Your task to perform on an android device: Empty the shopping cart on walmart. Add "jbl flip 4" to the cart on walmart Image 0: 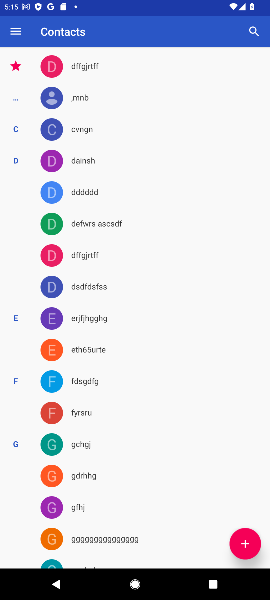
Step 0: press home button
Your task to perform on an android device: Empty the shopping cart on walmart. Add "jbl flip 4" to the cart on walmart Image 1: 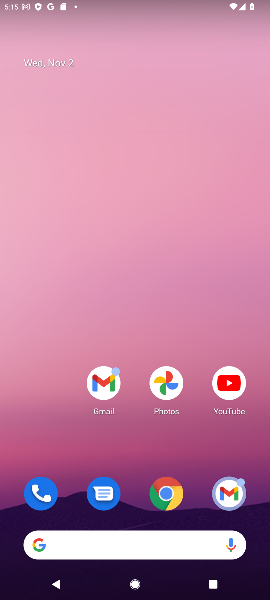
Step 1: drag from (131, 504) to (124, 190)
Your task to perform on an android device: Empty the shopping cart on walmart. Add "jbl flip 4" to the cart on walmart Image 2: 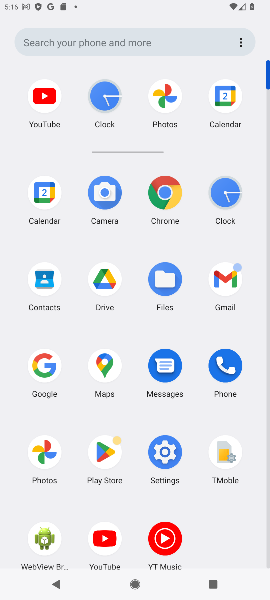
Step 2: click (43, 365)
Your task to perform on an android device: Empty the shopping cart on walmart. Add "jbl flip 4" to the cart on walmart Image 3: 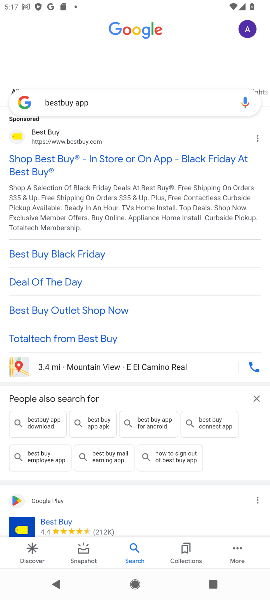
Step 3: click (115, 97)
Your task to perform on an android device: Empty the shopping cart on walmart. Add "jbl flip 4" to the cart on walmart Image 4: 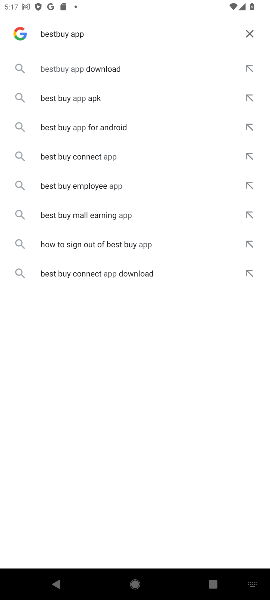
Step 4: click (246, 30)
Your task to perform on an android device: Empty the shopping cart on walmart. Add "jbl flip 4" to the cart on walmart Image 5: 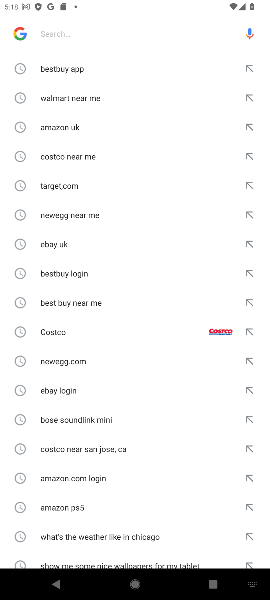
Step 5: click (52, 29)
Your task to perform on an android device: Empty the shopping cart on walmart. Add "jbl flip 4" to the cart on walmart Image 6: 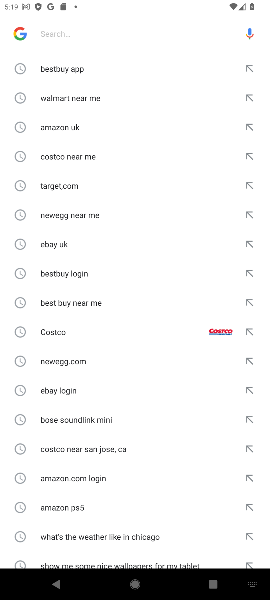
Step 6: type "walmart "
Your task to perform on an android device: Empty the shopping cart on walmart. Add "jbl flip 4" to the cart on walmart Image 7: 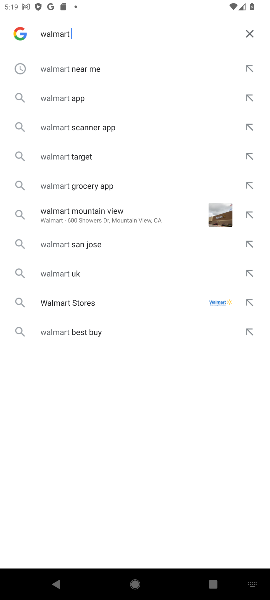
Step 7: click (247, 37)
Your task to perform on an android device: Empty the shopping cart on walmart. Add "jbl flip 4" to the cart on walmart Image 8: 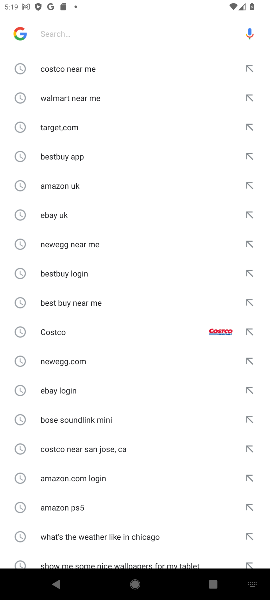
Step 8: click (54, 93)
Your task to perform on an android device: Empty the shopping cart on walmart. Add "jbl flip 4" to the cart on walmart Image 9: 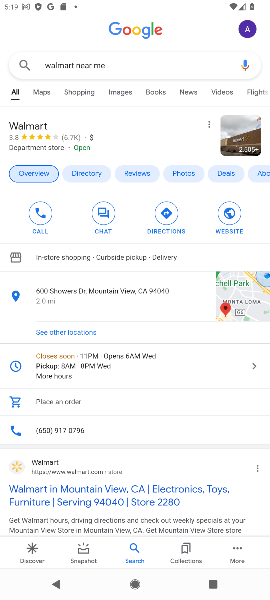
Step 9: click (16, 464)
Your task to perform on an android device: Empty the shopping cart on walmart. Add "jbl flip 4" to the cart on walmart Image 10: 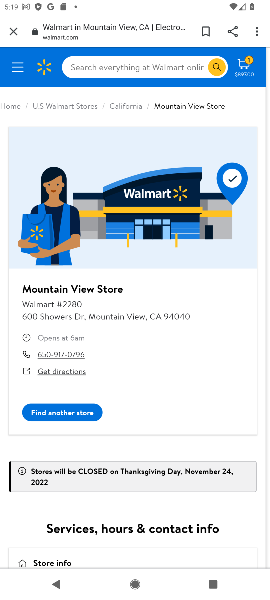
Step 10: click (98, 66)
Your task to perform on an android device: Empty the shopping cart on walmart. Add "jbl flip 4" to the cart on walmart Image 11: 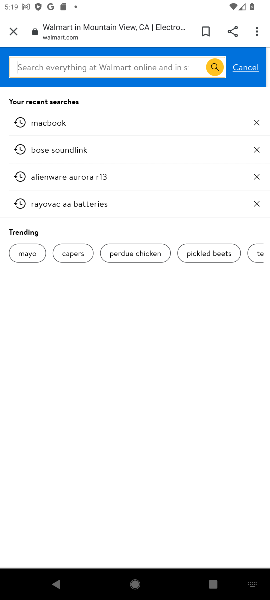
Step 11: click (242, 73)
Your task to perform on an android device: Empty the shopping cart on walmart. Add "jbl flip 4" to the cart on walmart Image 12: 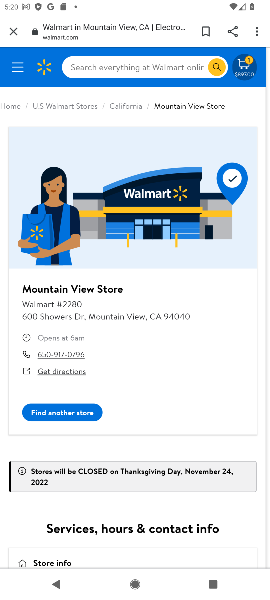
Step 12: click (242, 59)
Your task to perform on an android device: Empty the shopping cart on walmart. Add "jbl flip 4" to the cart on walmart Image 13: 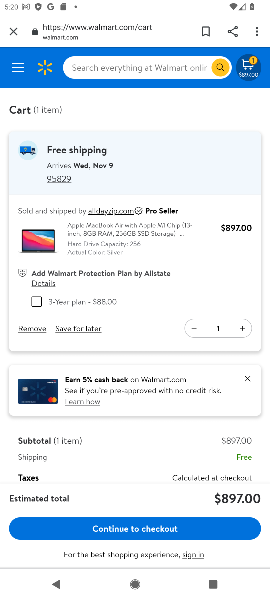
Step 13: click (34, 328)
Your task to perform on an android device: Empty the shopping cart on walmart. Add "jbl flip 4" to the cart on walmart Image 14: 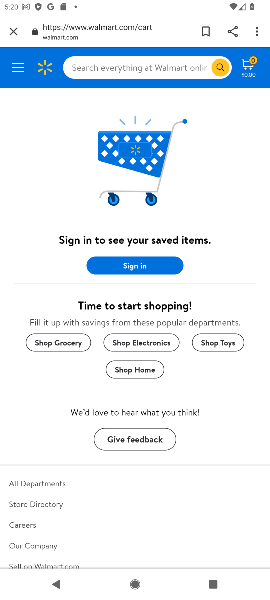
Step 14: task complete